Your task to perform on an android device: turn off notifications in google photos Image 0: 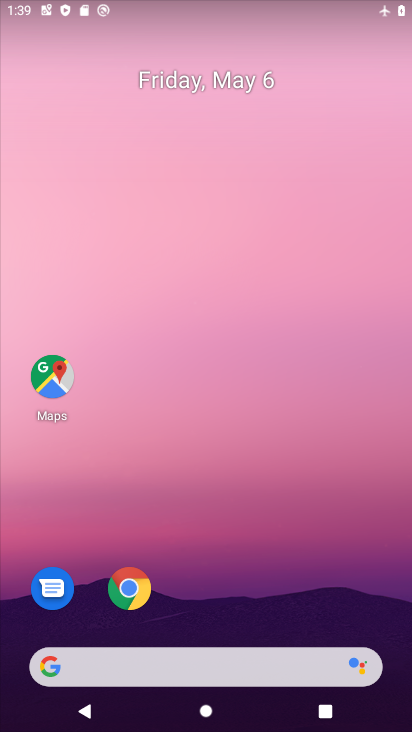
Step 0: drag from (357, 558) to (352, 196)
Your task to perform on an android device: turn off notifications in google photos Image 1: 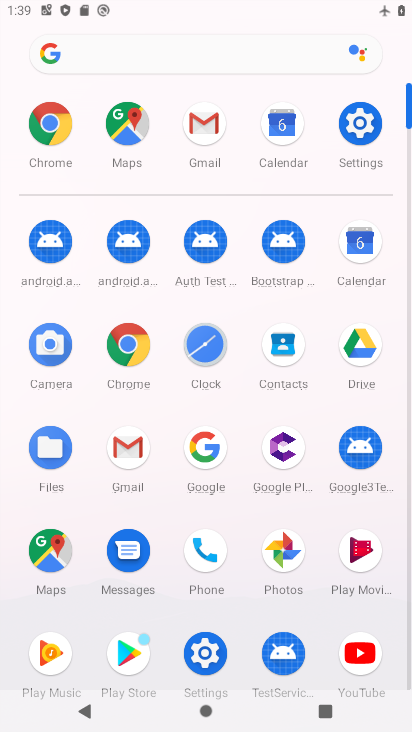
Step 1: click (284, 549)
Your task to perform on an android device: turn off notifications in google photos Image 2: 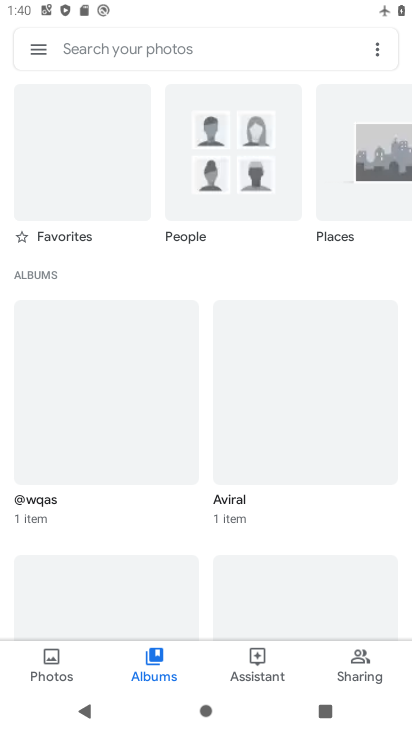
Step 2: click (51, 50)
Your task to perform on an android device: turn off notifications in google photos Image 3: 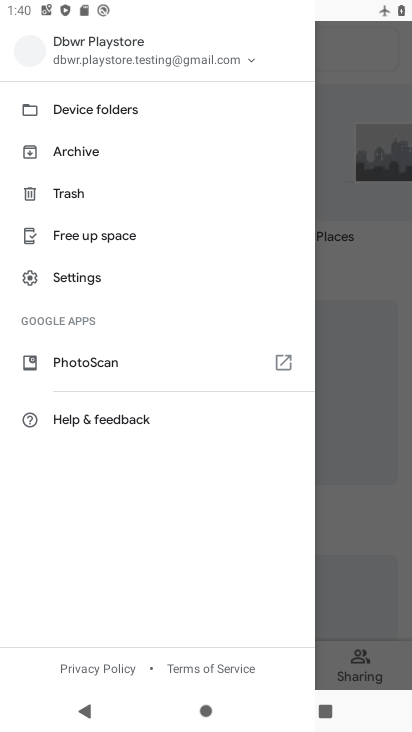
Step 3: click (104, 282)
Your task to perform on an android device: turn off notifications in google photos Image 4: 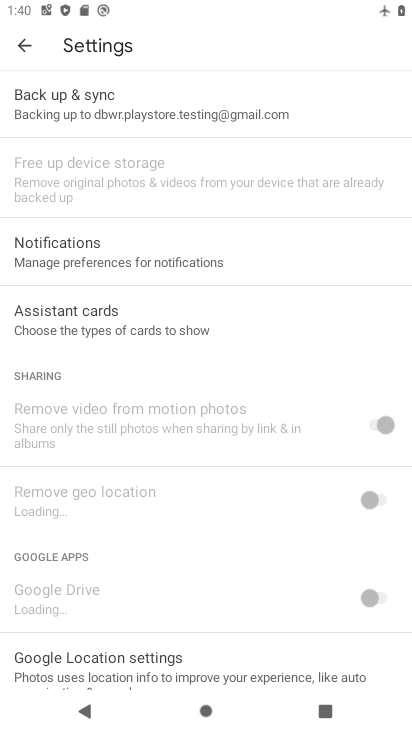
Step 4: click (119, 255)
Your task to perform on an android device: turn off notifications in google photos Image 5: 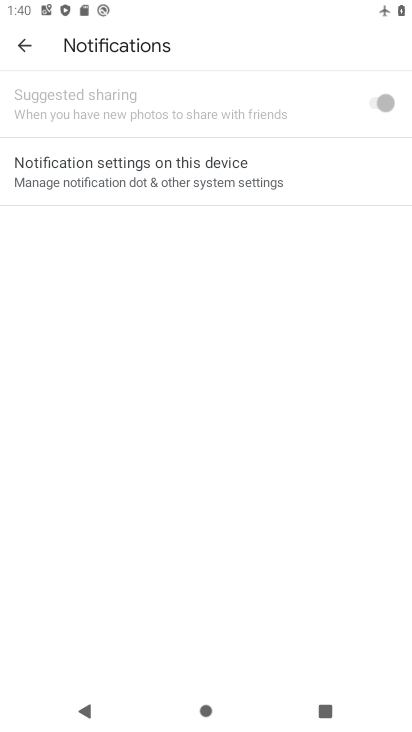
Step 5: click (182, 166)
Your task to perform on an android device: turn off notifications in google photos Image 6: 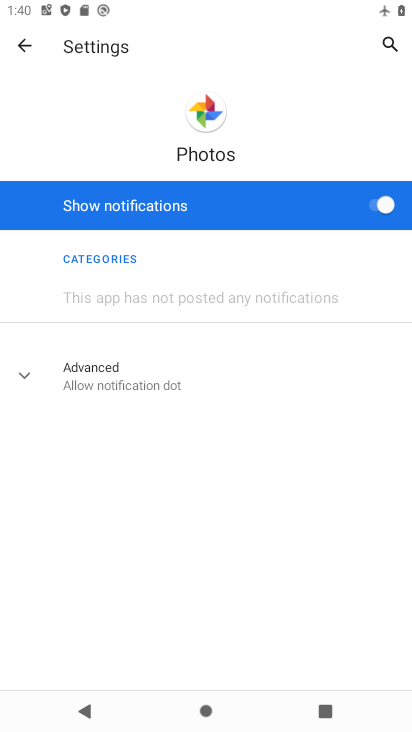
Step 6: click (371, 206)
Your task to perform on an android device: turn off notifications in google photos Image 7: 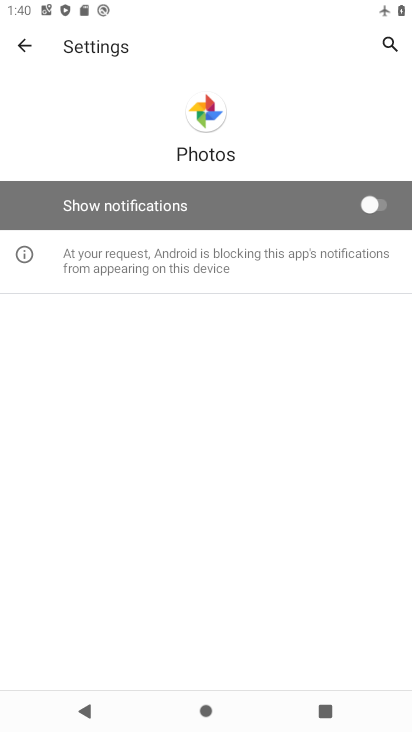
Step 7: task complete